Your task to perform on an android device: remove spam from my inbox in the gmail app Image 0: 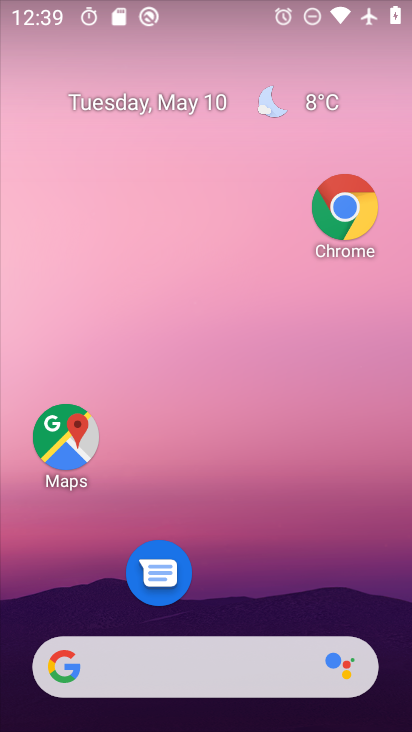
Step 0: drag from (364, 519) to (330, 132)
Your task to perform on an android device: remove spam from my inbox in the gmail app Image 1: 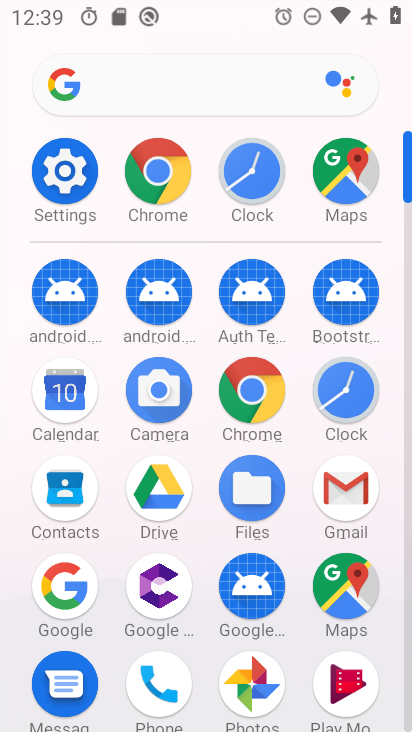
Step 1: click (346, 477)
Your task to perform on an android device: remove spam from my inbox in the gmail app Image 2: 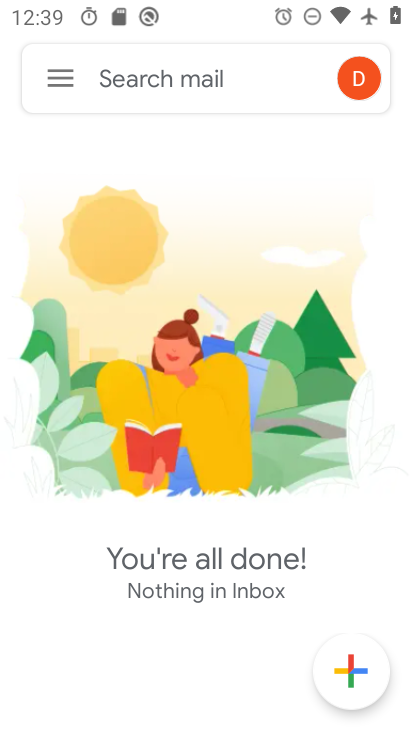
Step 2: click (54, 83)
Your task to perform on an android device: remove spam from my inbox in the gmail app Image 3: 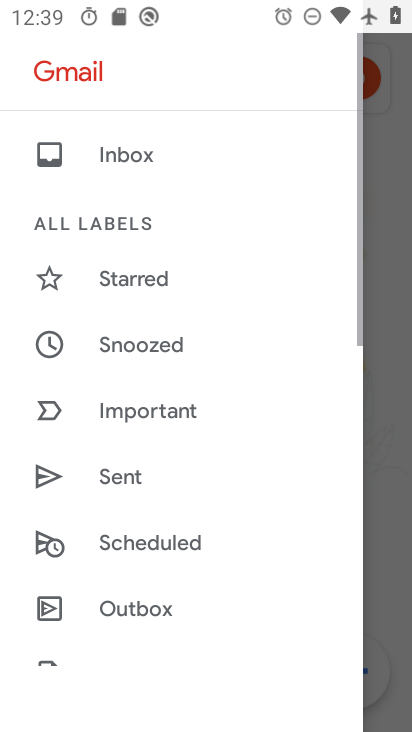
Step 3: drag from (278, 532) to (291, 273)
Your task to perform on an android device: remove spam from my inbox in the gmail app Image 4: 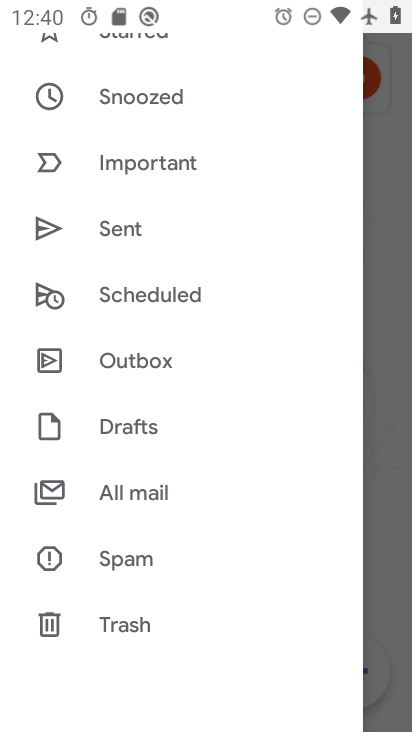
Step 4: drag from (155, 204) to (155, 589)
Your task to perform on an android device: remove spam from my inbox in the gmail app Image 5: 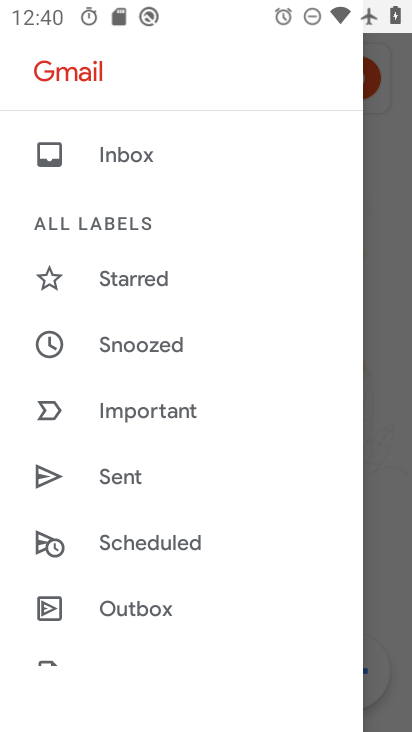
Step 5: click (139, 173)
Your task to perform on an android device: remove spam from my inbox in the gmail app Image 6: 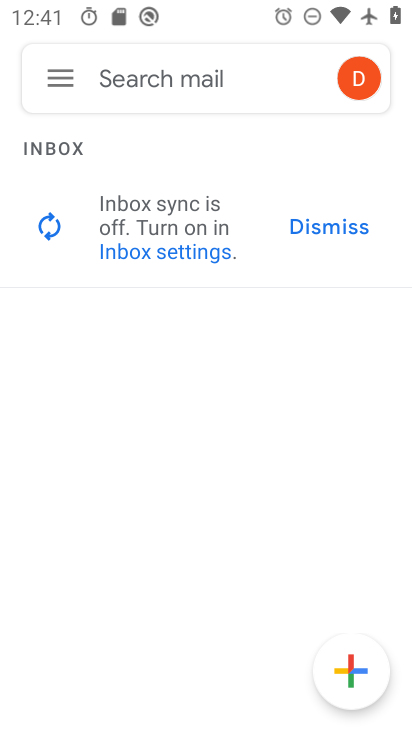
Step 6: task complete